Your task to perform on an android device: change timer sound Image 0: 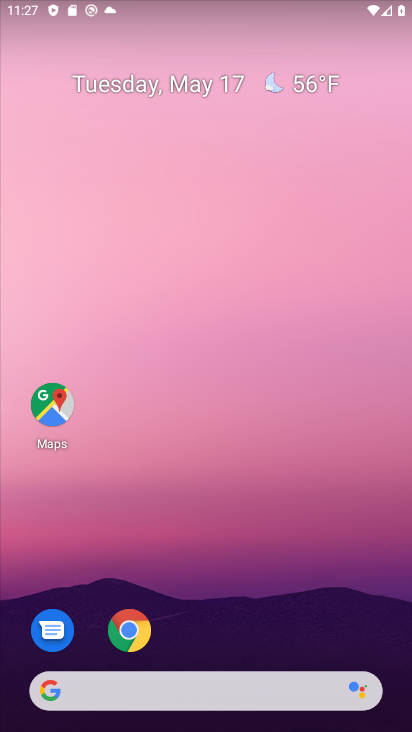
Step 0: drag from (369, 553) to (303, 241)
Your task to perform on an android device: change timer sound Image 1: 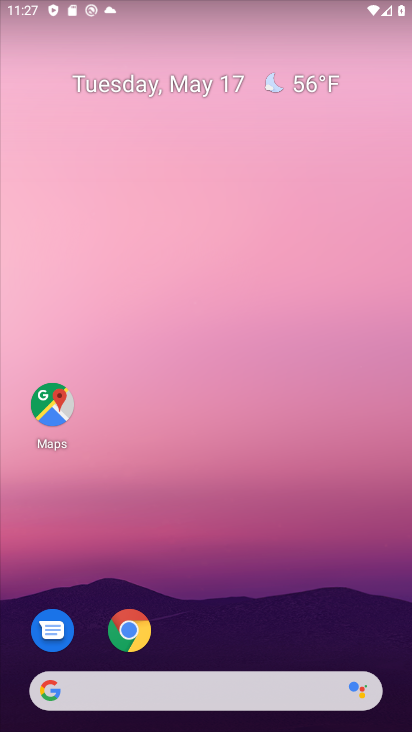
Step 1: drag from (349, 577) to (311, 140)
Your task to perform on an android device: change timer sound Image 2: 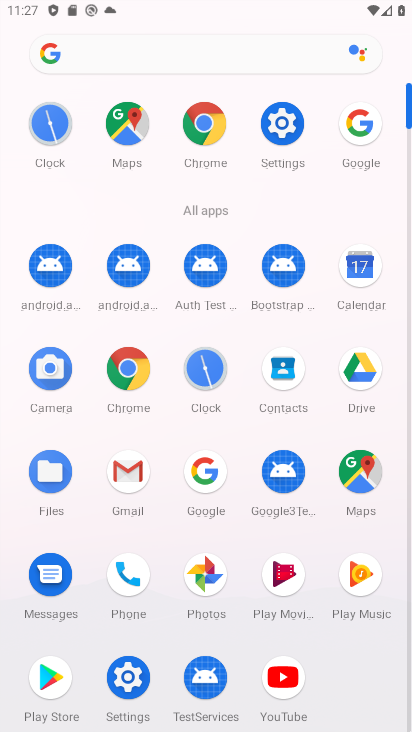
Step 2: click (277, 154)
Your task to perform on an android device: change timer sound Image 3: 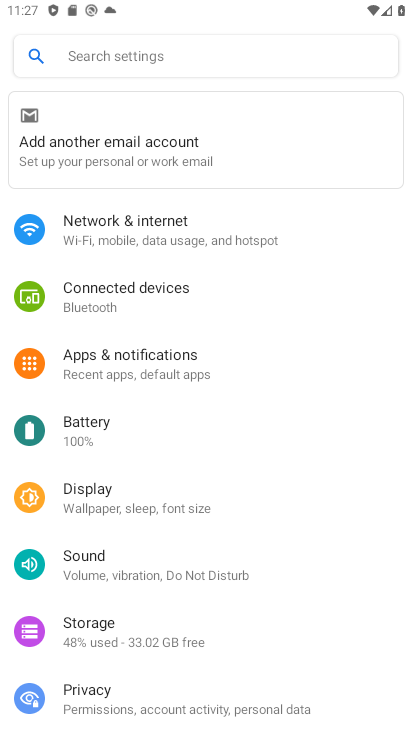
Step 3: press home button
Your task to perform on an android device: change timer sound Image 4: 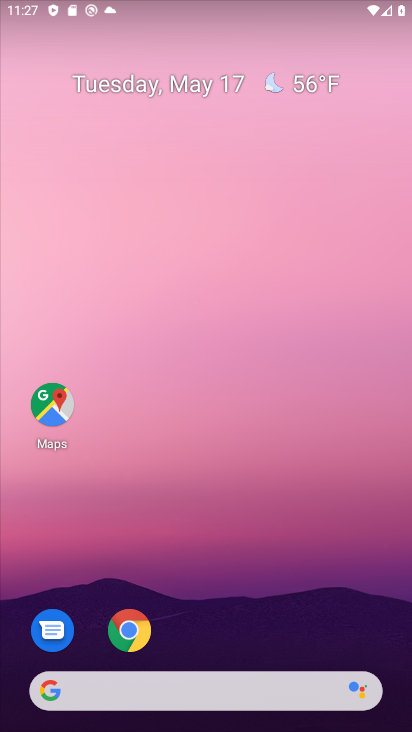
Step 4: drag from (334, 603) to (298, 119)
Your task to perform on an android device: change timer sound Image 5: 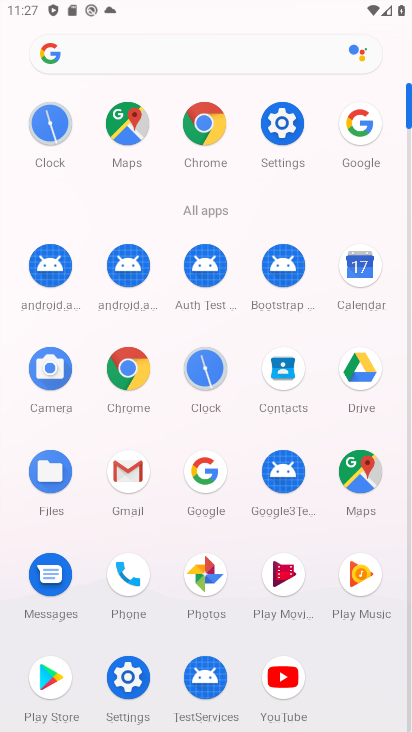
Step 5: click (189, 366)
Your task to perform on an android device: change timer sound Image 6: 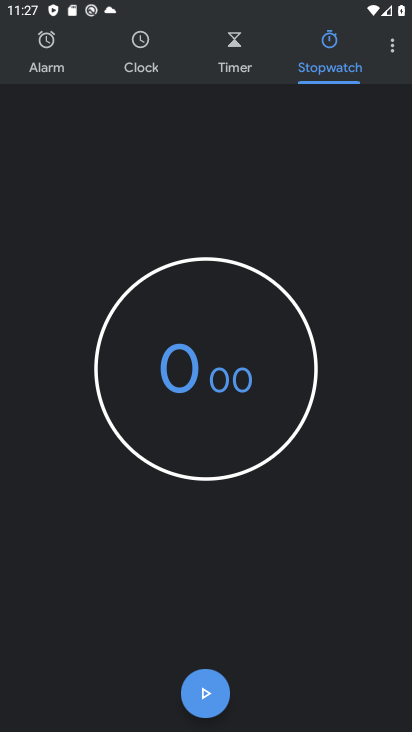
Step 6: drag from (389, 56) to (345, 96)
Your task to perform on an android device: change timer sound Image 7: 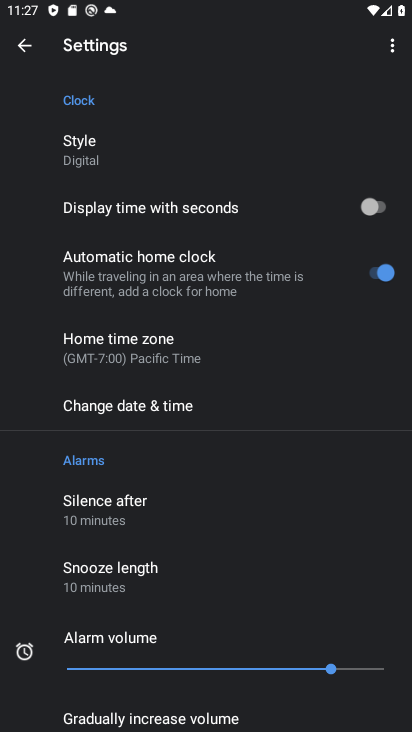
Step 7: drag from (185, 619) to (241, 261)
Your task to perform on an android device: change timer sound Image 8: 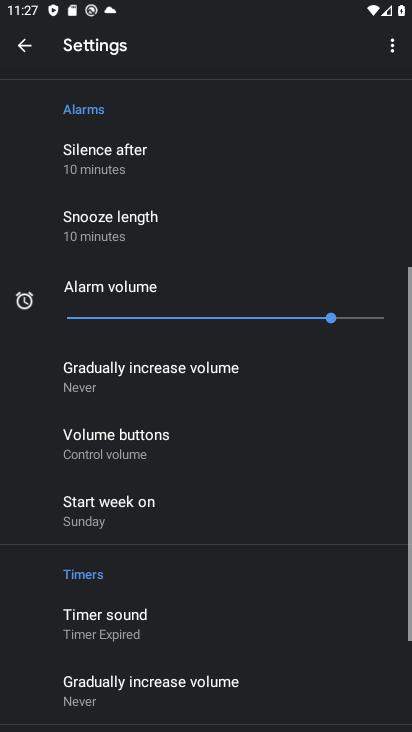
Step 8: drag from (215, 542) to (228, 252)
Your task to perform on an android device: change timer sound Image 9: 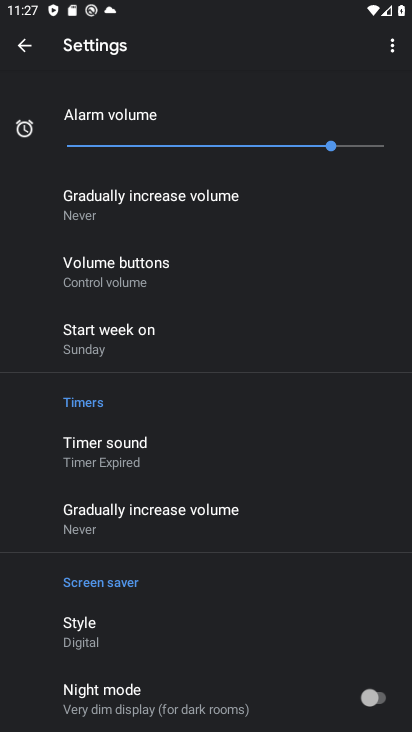
Step 9: click (162, 459)
Your task to perform on an android device: change timer sound Image 10: 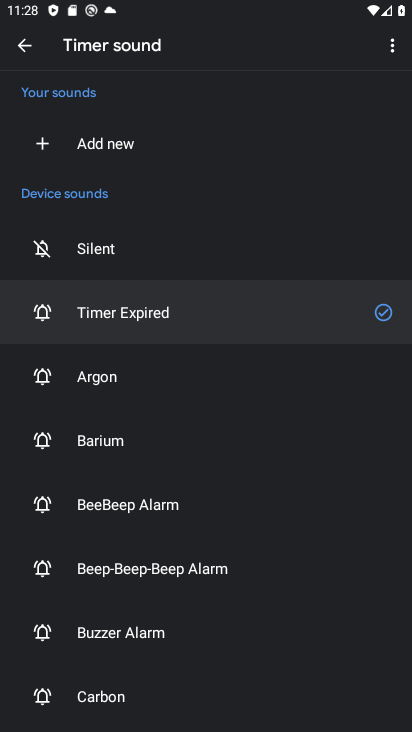
Step 10: click (117, 389)
Your task to perform on an android device: change timer sound Image 11: 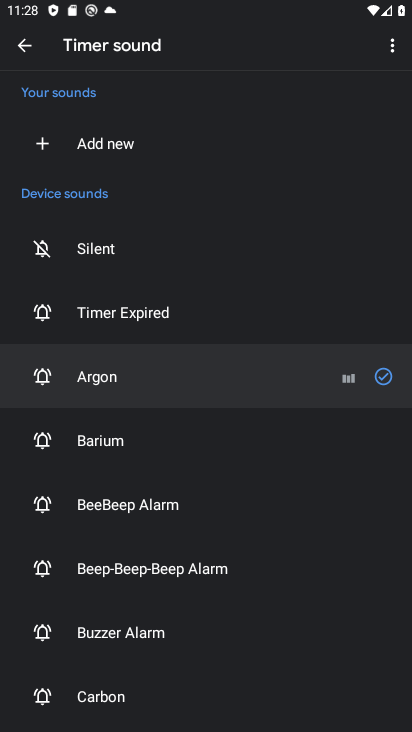
Step 11: task complete